Your task to perform on an android device: Open Google Maps Image 0: 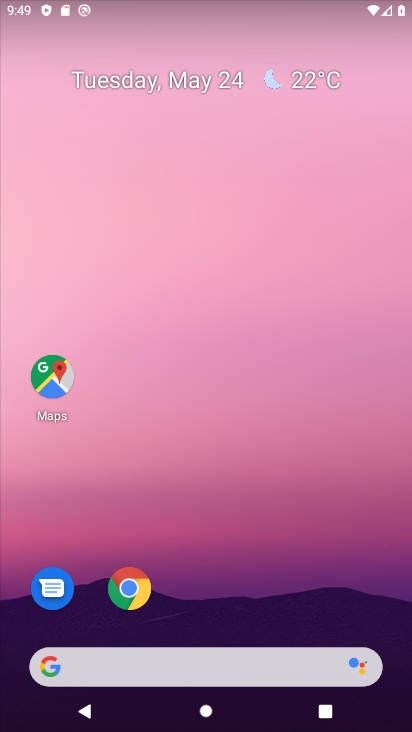
Step 0: click (54, 389)
Your task to perform on an android device: Open Google Maps Image 1: 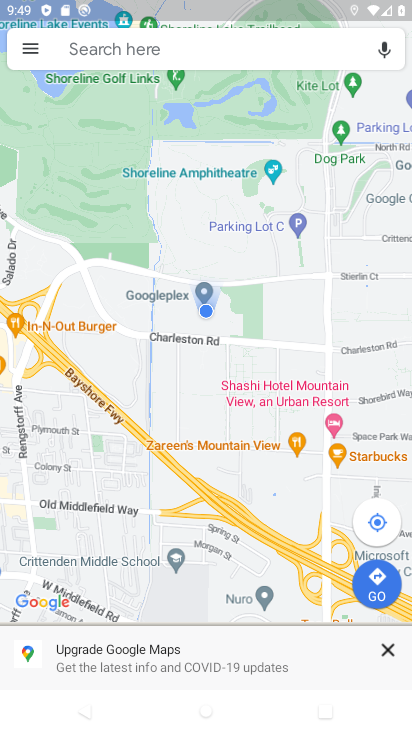
Step 1: task complete